Your task to perform on an android device: turn off location Image 0: 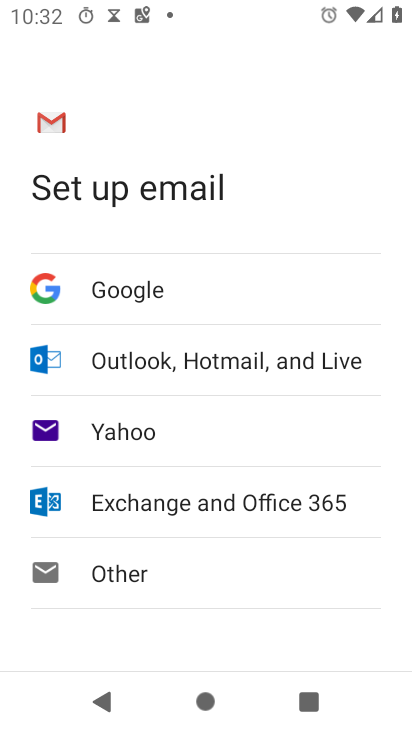
Step 0: press home button
Your task to perform on an android device: turn off location Image 1: 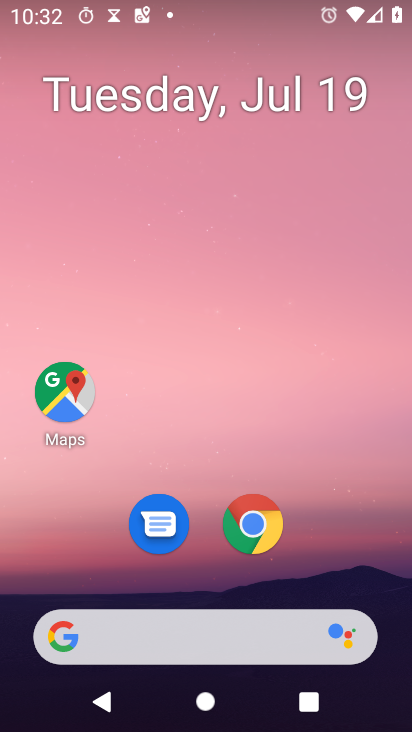
Step 1: drag from (190, 641) to (285, 150)
Your task to perform on an android device: turn off location Image 2: 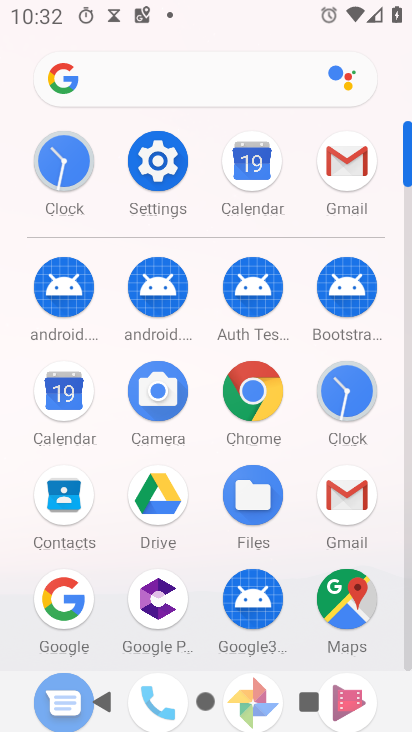
Step 2: click (171, 162)
Your task to perform on an android device: turn off location Image 3: 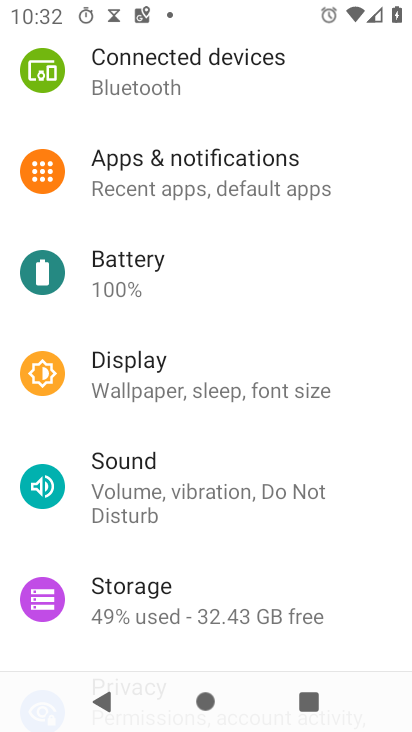
Step 3: drag from (210, 561) to (362, 173)
Your task to perform on an android device: turn off location Image 4: 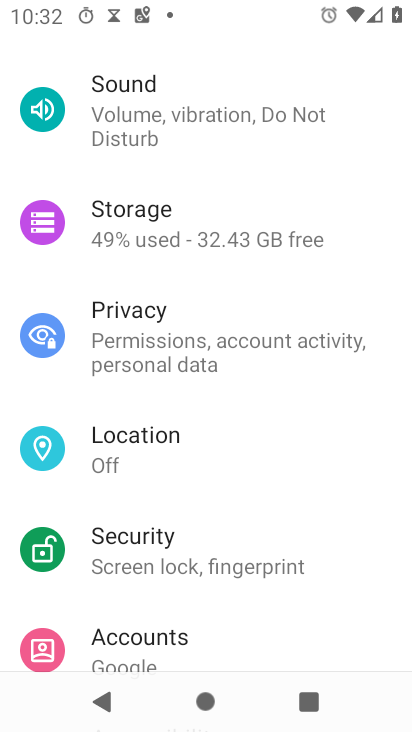
Step 4: click (164, 457)
Your task to perform on an android device: turn off location Image 5: 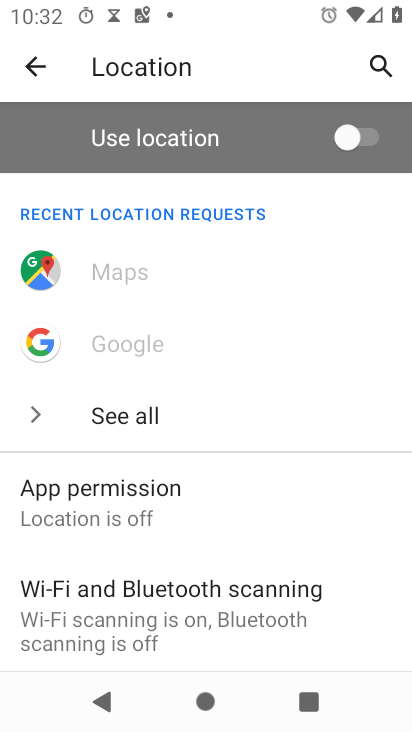
Step 5: task complete